Your task to perform on an android device: Go to Wikipedia Image 0: 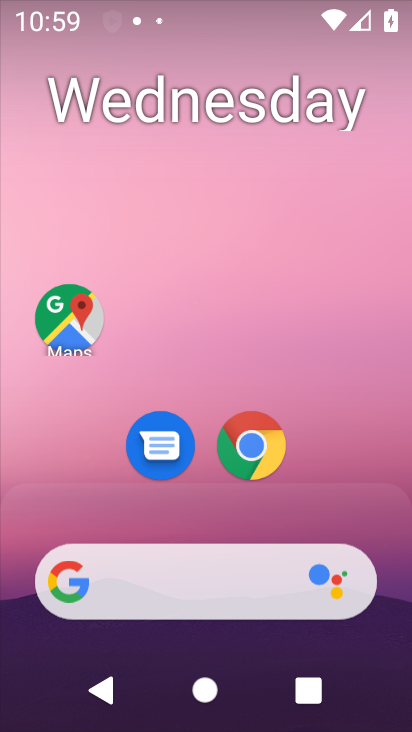
Step 0: drag from (226, 304) to (243, 49)
Your task to perform on an android device: Go to Wikipedia Image 1: 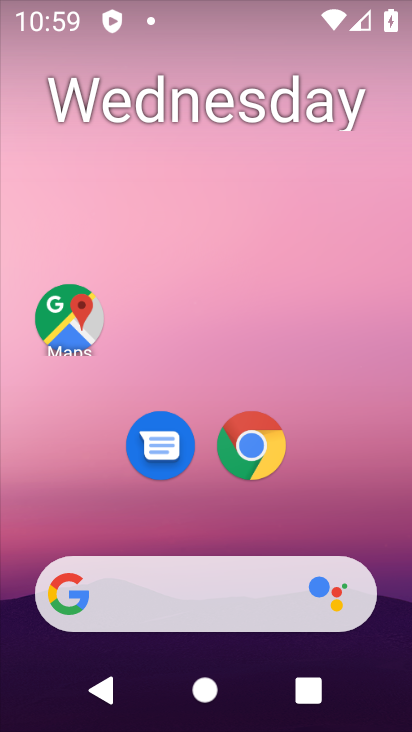
Step 1: click (254, 433)
Your task to perform on an android device: Go to Wikipedia Image 2: 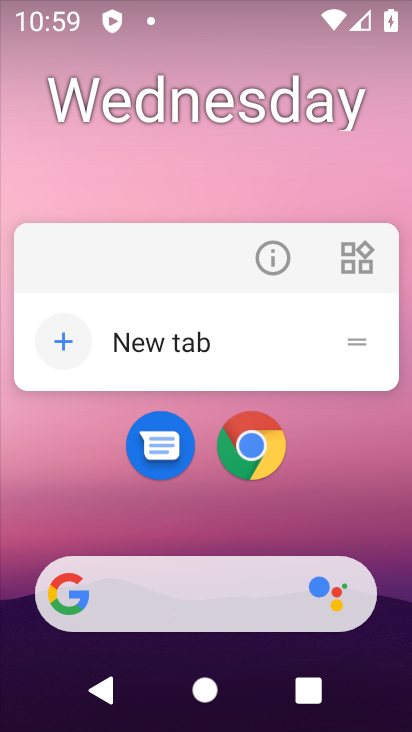
Step 2: click (251, 453)
Your task to perform on an android device: Go to Wikipedia Image 3: 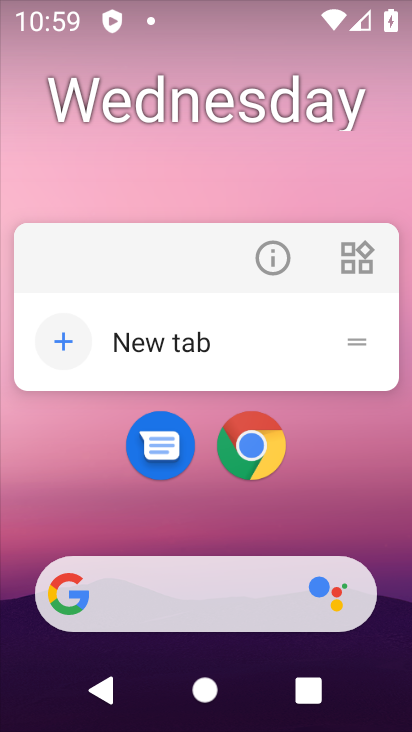
Step 3: click (254, 444)
Your task to perform on an android device: Go to Wikipedia Image 4: 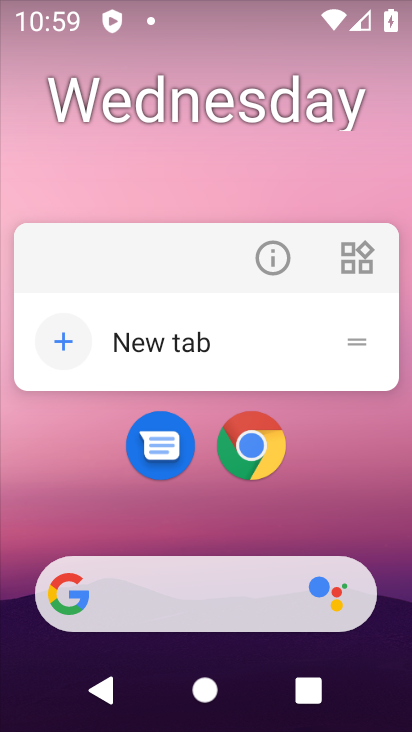
Step 4: click (258, 454)
Your task to perform on an android device: Go to Wikipedia Image 5: 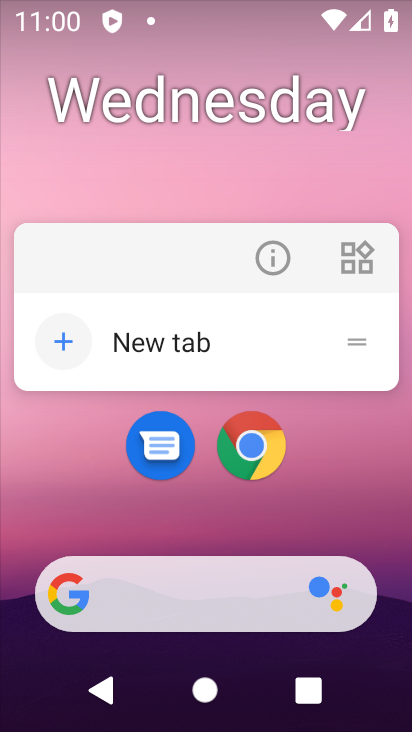
Step 5: click (209, 593)
Your task to perform on an android device: Go to Wikipedia Image 6: 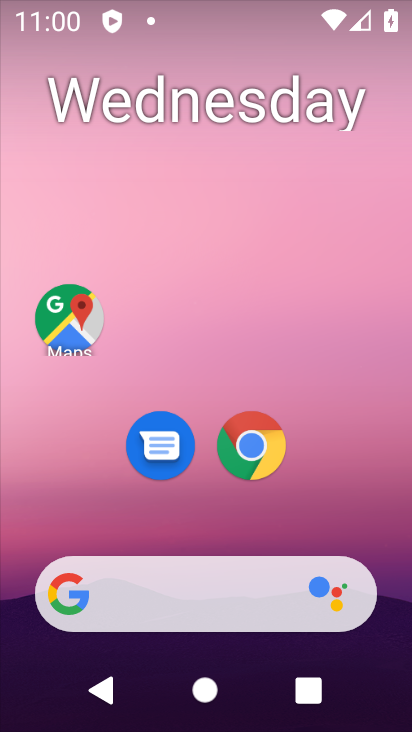
Step 6: click (238, 439)
Your task to perform on an android device: Go to Wikipedia Image 7: 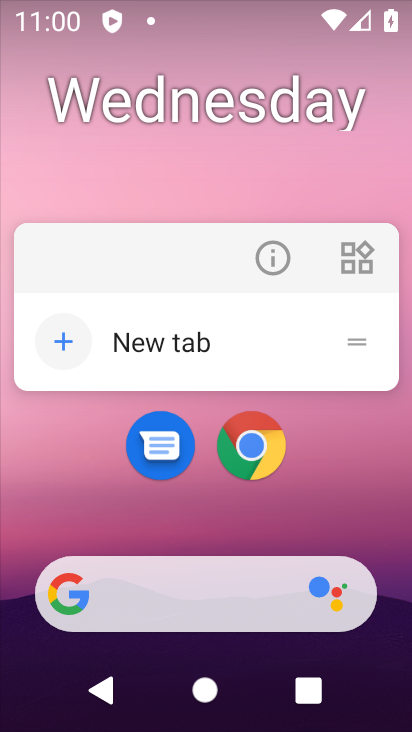
Step 7: click (255, 456)
Your task to perform on an android device: Go to Wikipedia Image 8: 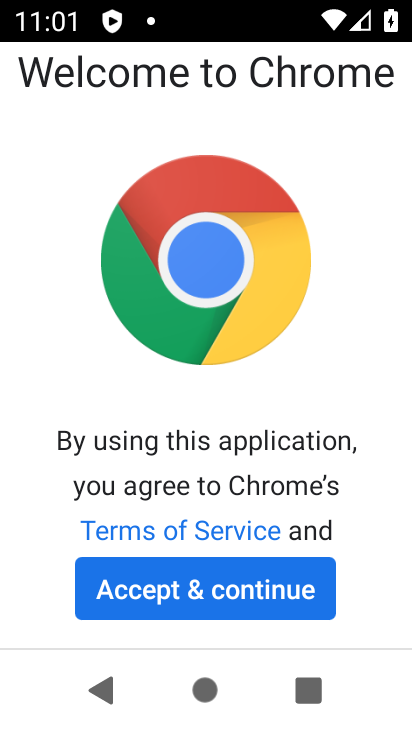
Step 8: click (222, 617)
Your task to perform on an android device: Go to Wikipedia Image 9: 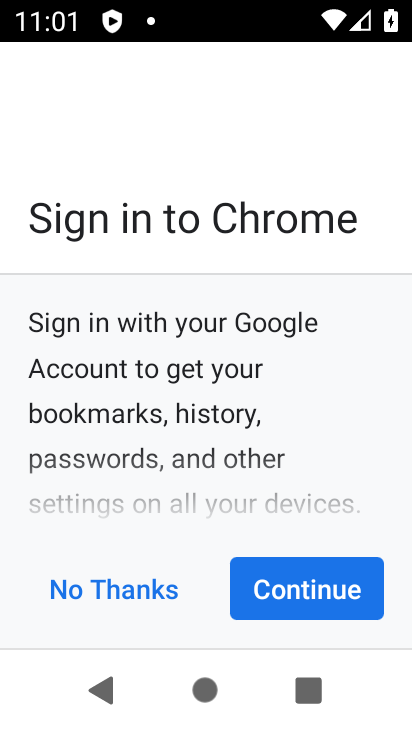
Step 9: click (327, 583)
Your task to perform on an android device: Go to Wikipedia Image 10: 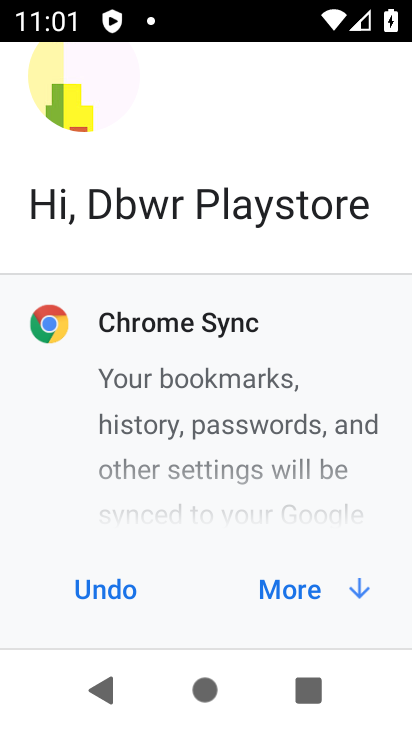
Step 10: click (292, 585)
Your task to perform on an android device: Go to Wikipedia Image 11: 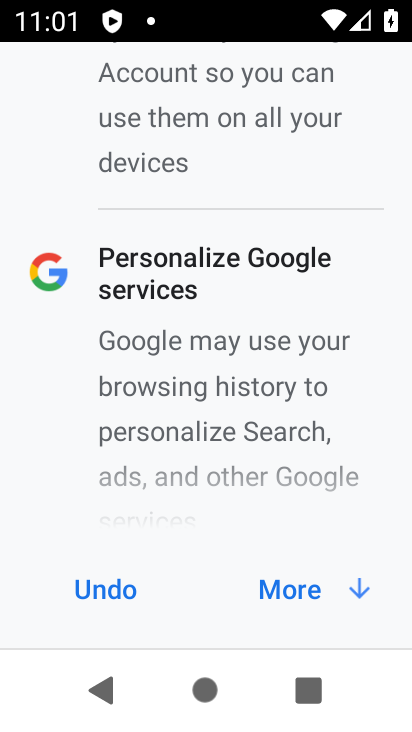
Step 11: click (291, 588)
Your task to perform on an android device: Go to Wikipedia Image 12: 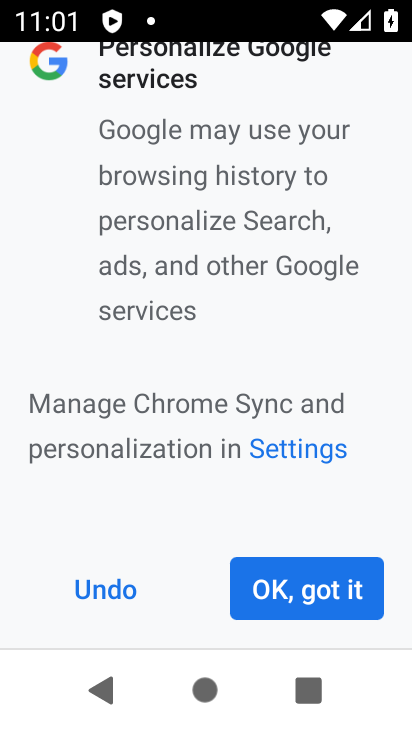
Step 12: click (293, 582)
Your task to perform on an android device: Go to Wikipedia Image 13: 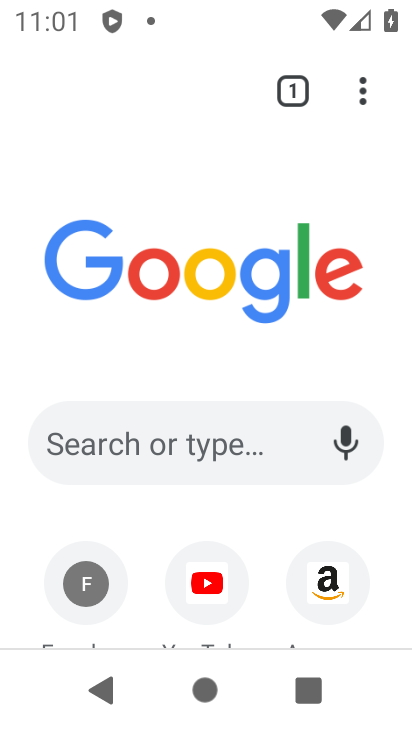
Step 13: drag from (241, 532) to (285, 139)
Your task to perform on an android device: Go to Wikipedia Image 14: 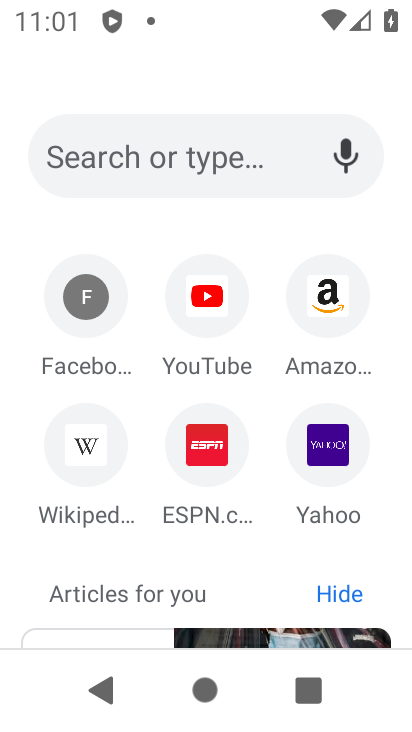
Step 14: click (100, 438)
Your task to perform on an android device: Go to Wikipedia Image 15: 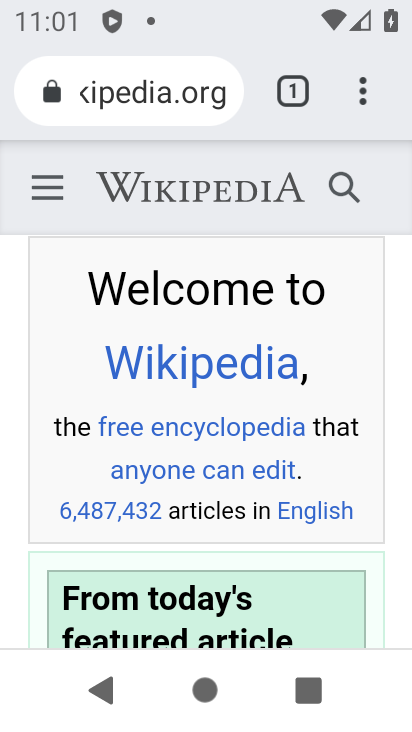
Step 15: task complete